Your task to perform on an android device: turn on location history Image 0: 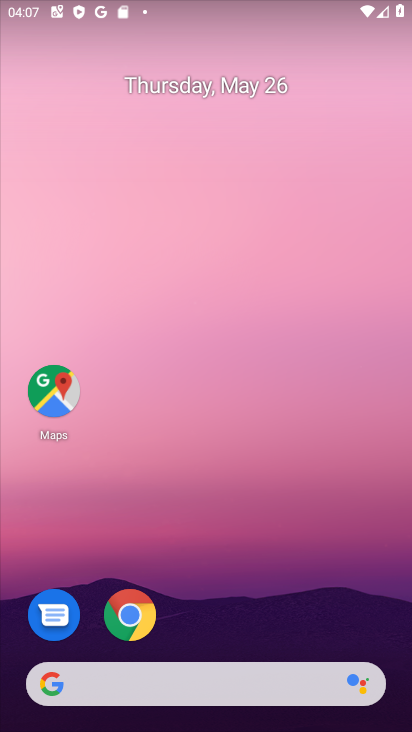
Step 0: drag from (226, 616) to (190, 5)
Your task to perform on an android device: turn on location history Image 1: 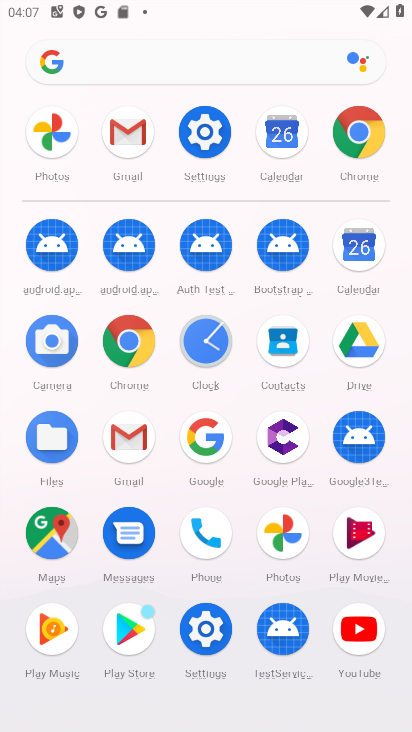
Step 1: click (206, 146)
Your task to perform on an android device: turn on location history Image 2: 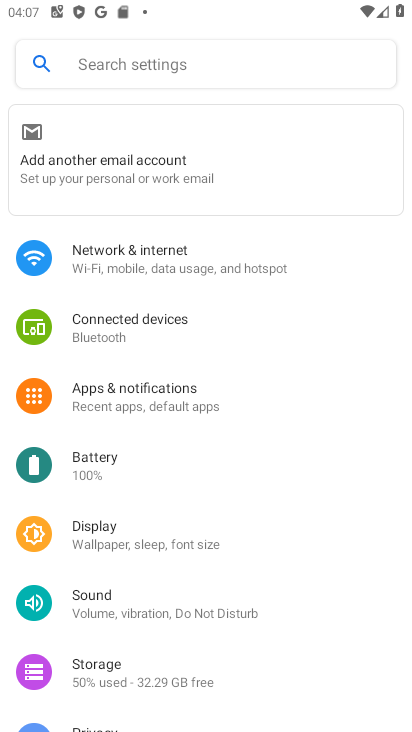
Step 2: drag from (133, 642) to (128, 309)
Your task to perform on an android device: turn on location history Image 3: 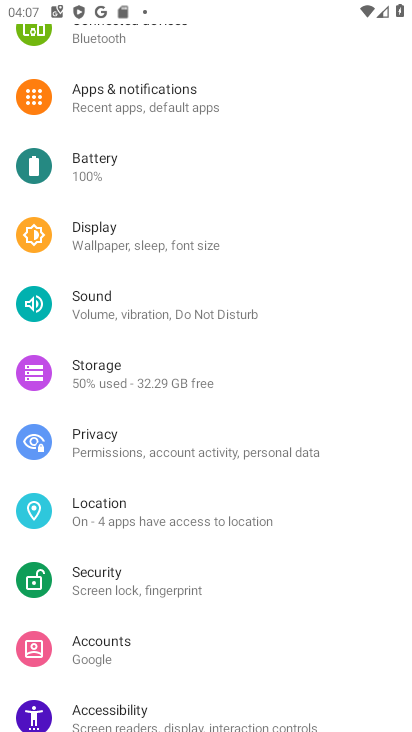
Step 3: drag from (155, 647) to (210, 267)
Your task to perform on an android device: turn on location history Image 4: 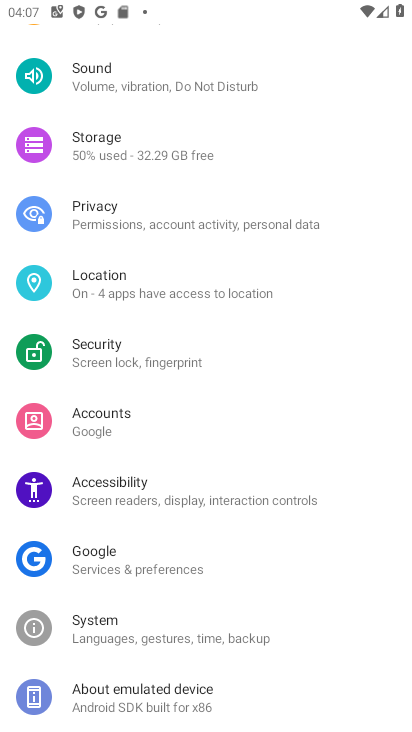
Step 4: click (92, 295)
Your task to perform on an android device: turn on location history Image 5: 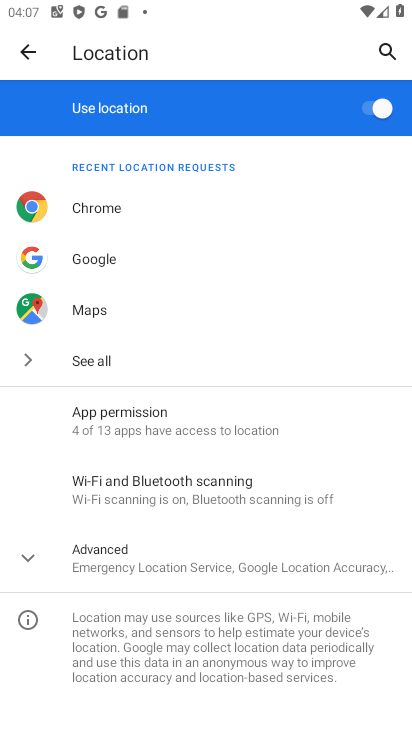
Step 5: click (131, 560)
Your task to perform on an android device: turn on location history Image 6: 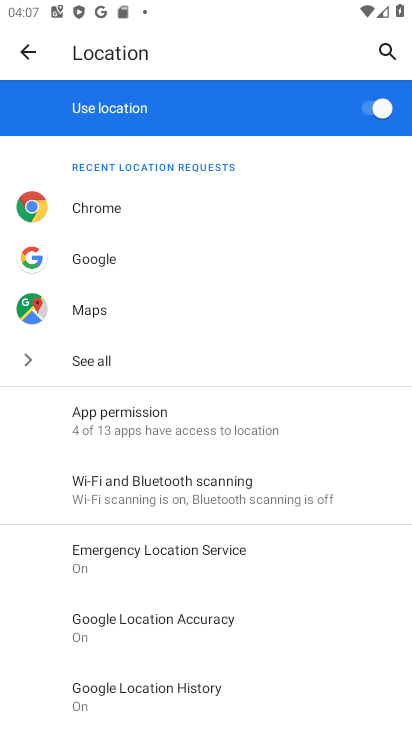
Step 6: click (147, 697)
Your task to perform on an android device: turn on location history Image 7: 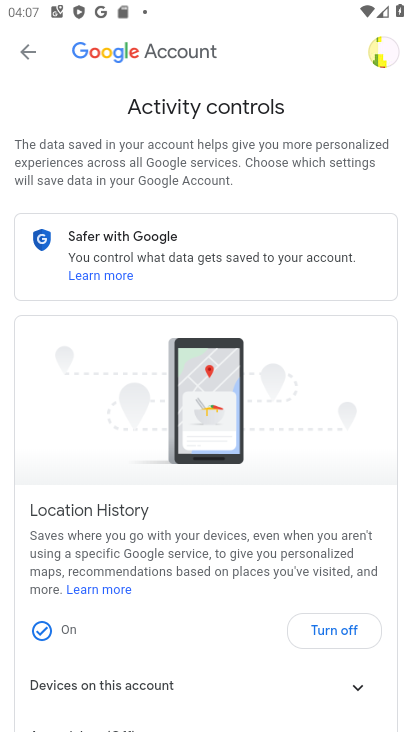
Step 7: task complete